Your task to perform on an android device: turn pop-ups on in chrome Image 0: 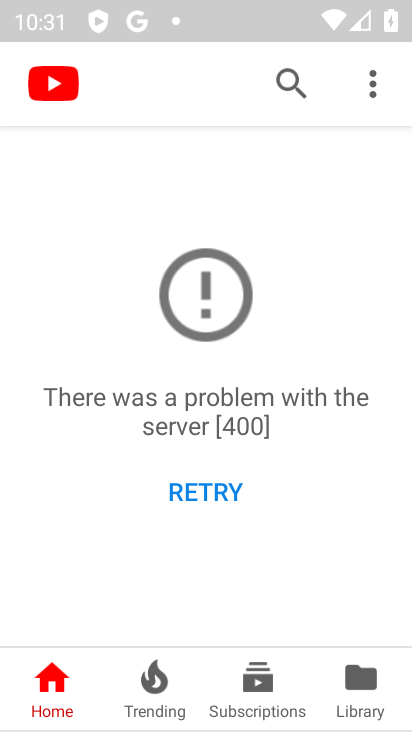
Step 0: press home button
Your task to perform on an android device: turn pop-ups on in chrome Image 1: 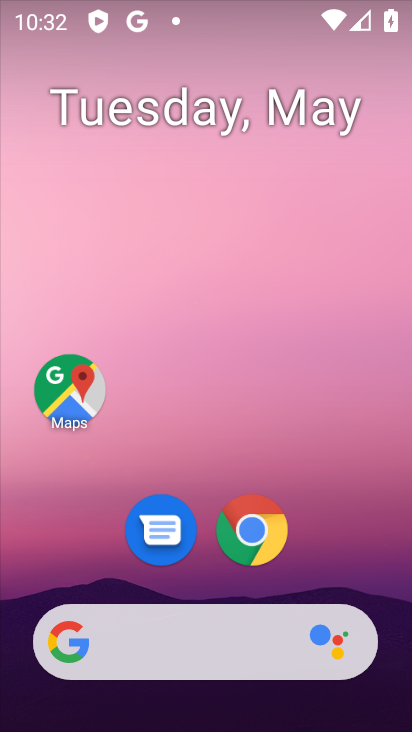
Step 1: click (261, 531)
Your task to perform on an android device: turn pop-ups on in chrome Image 2: 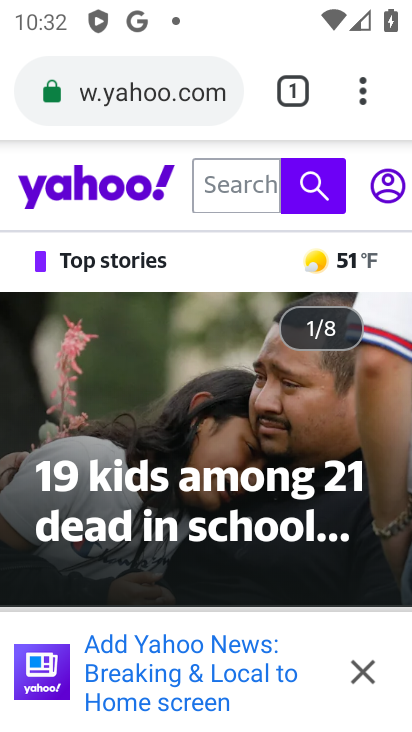
Step 2: click (363, 90)
Your task to perform on an android device: turn pop-ups on in chrome Image 3: 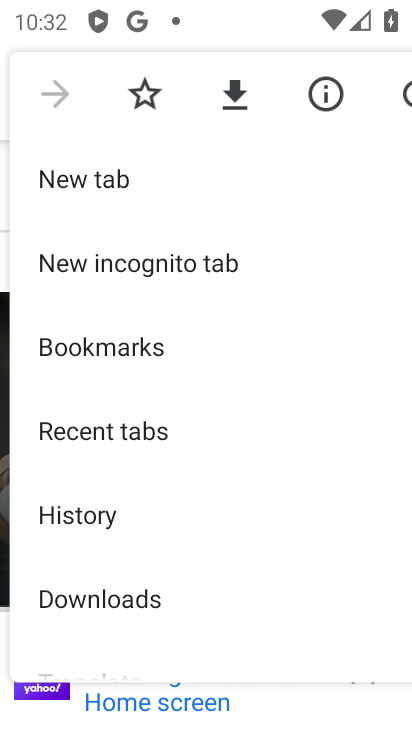
Step 3: drag from (142, 577) to (262, 132)
Your task to perform on an android device: turn pop-ups on in chrome Image 4: 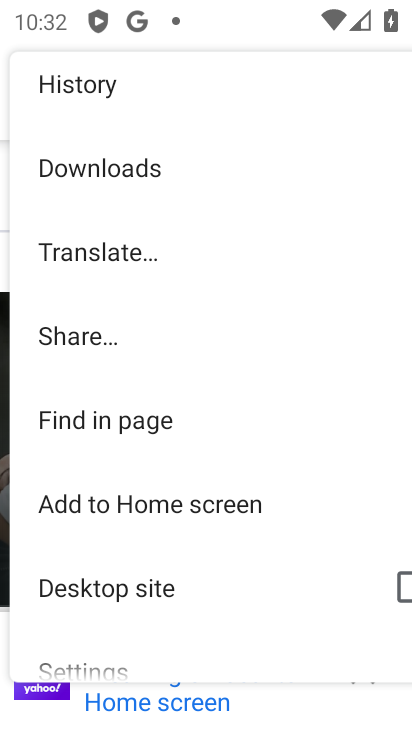
Step 4: drag from (164, 622) to (310, 276)
Your task to perform on an android device: turn pop-ups on in chrome Image 5: 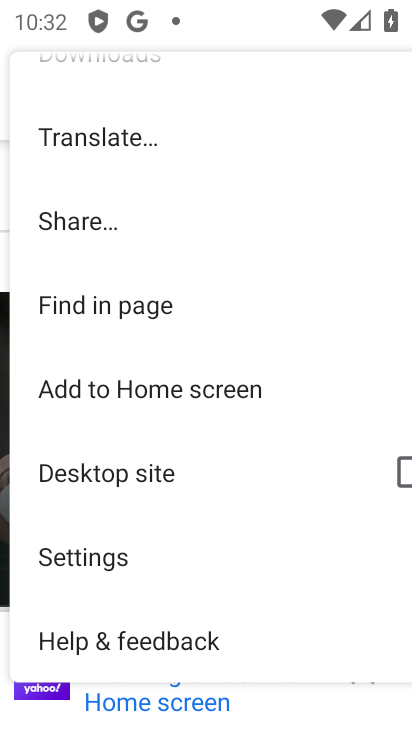
Step 5: click (95, 558)
Your task to perform on an android device: turn pop-ups on in chrome Image 6: 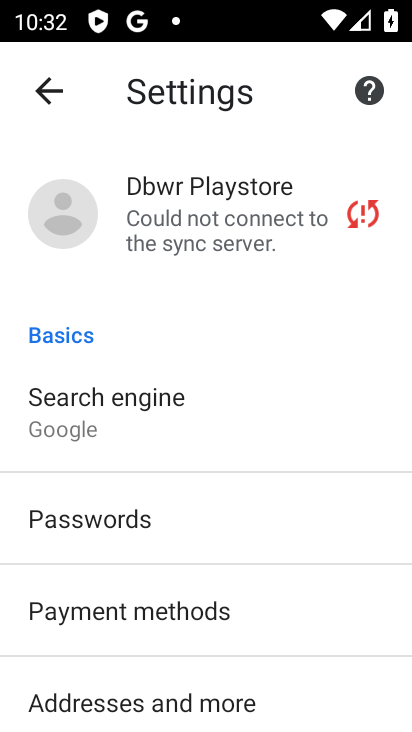
Step 6: drag from (190, 645) to (256, 227)
Your task to perform on an android device: turn pop-ups on in chrome Image 7: 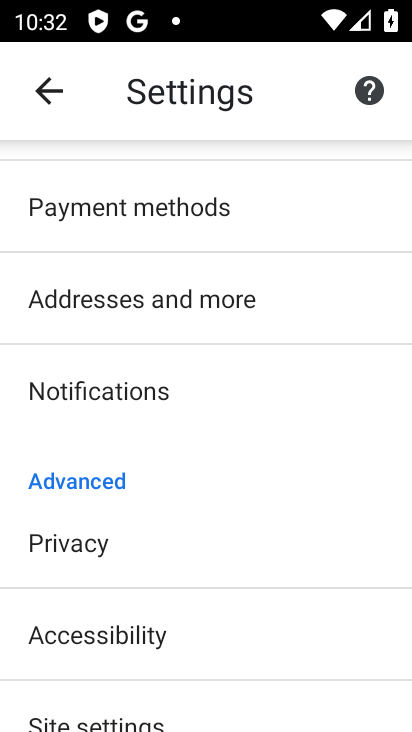
Step 7: drag from (214, 493) to (287, 242)
Your task to perform on an android device: turn pop-ups on in chrome Image 8: 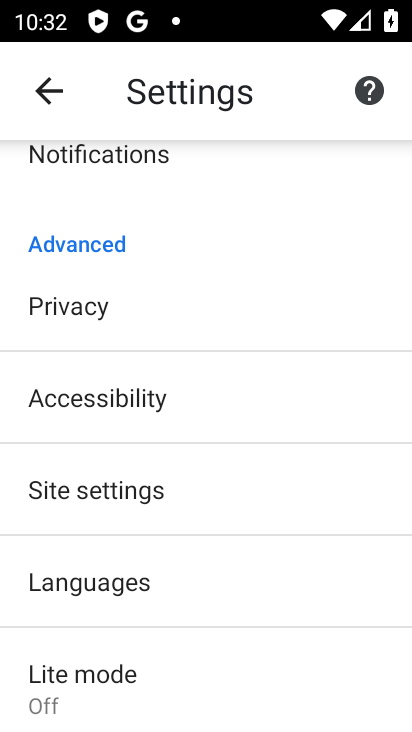
Step 8: click (131, 489)
Your task to perform on an android device: turn pop-ups on in chrome Image 9: 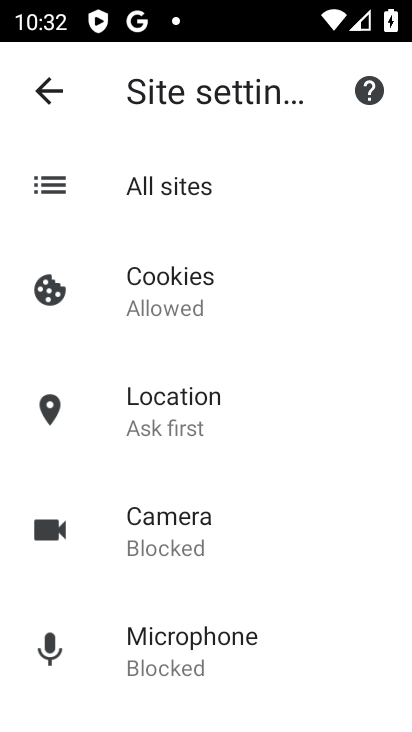
Step 9: drag from (210, 556) to (289, 207)
Your task to perform on an android device: turn pop-ups on in chrome Image 10: 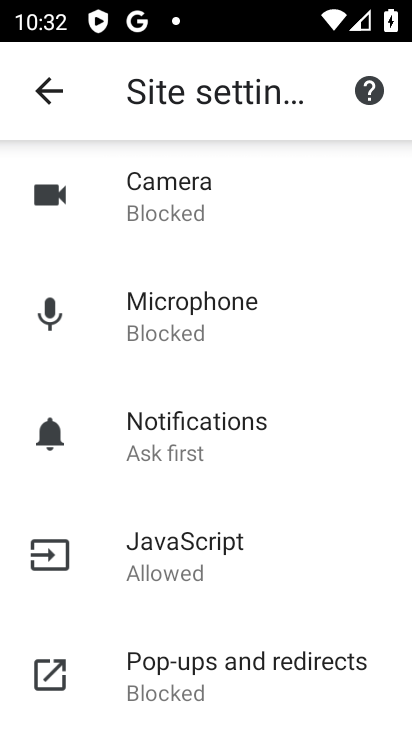
Step 10: click (196, 674)
Your task to perform on an android device: turn pop-ups on in chrome Image 11: 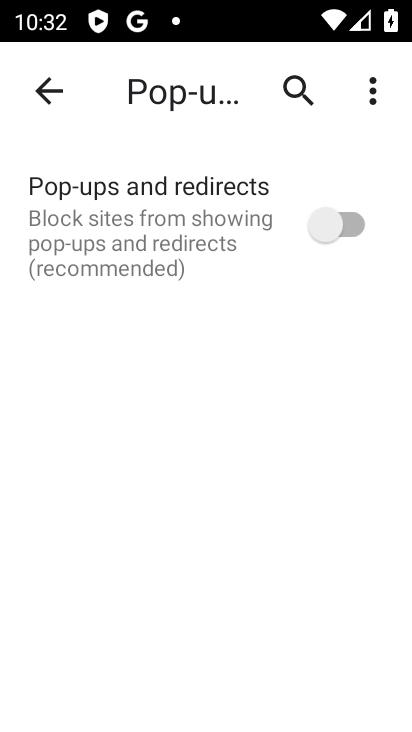
Step 11: click (347, 223)
Your task to perform on an android device: turn pop-ups on in chrome Image 12: 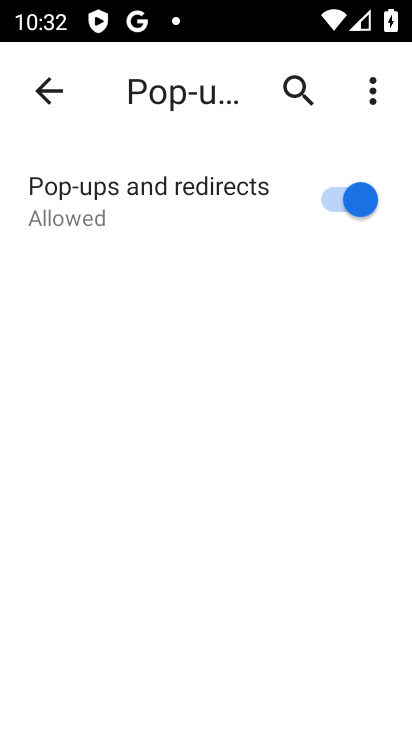
Step 12: task complete